Your task to perform on an android device: open app "Indeed Job Search" (install if not already installed) and enter user name: "quixotic@inbox.com" and password: "microphones" Image 0: 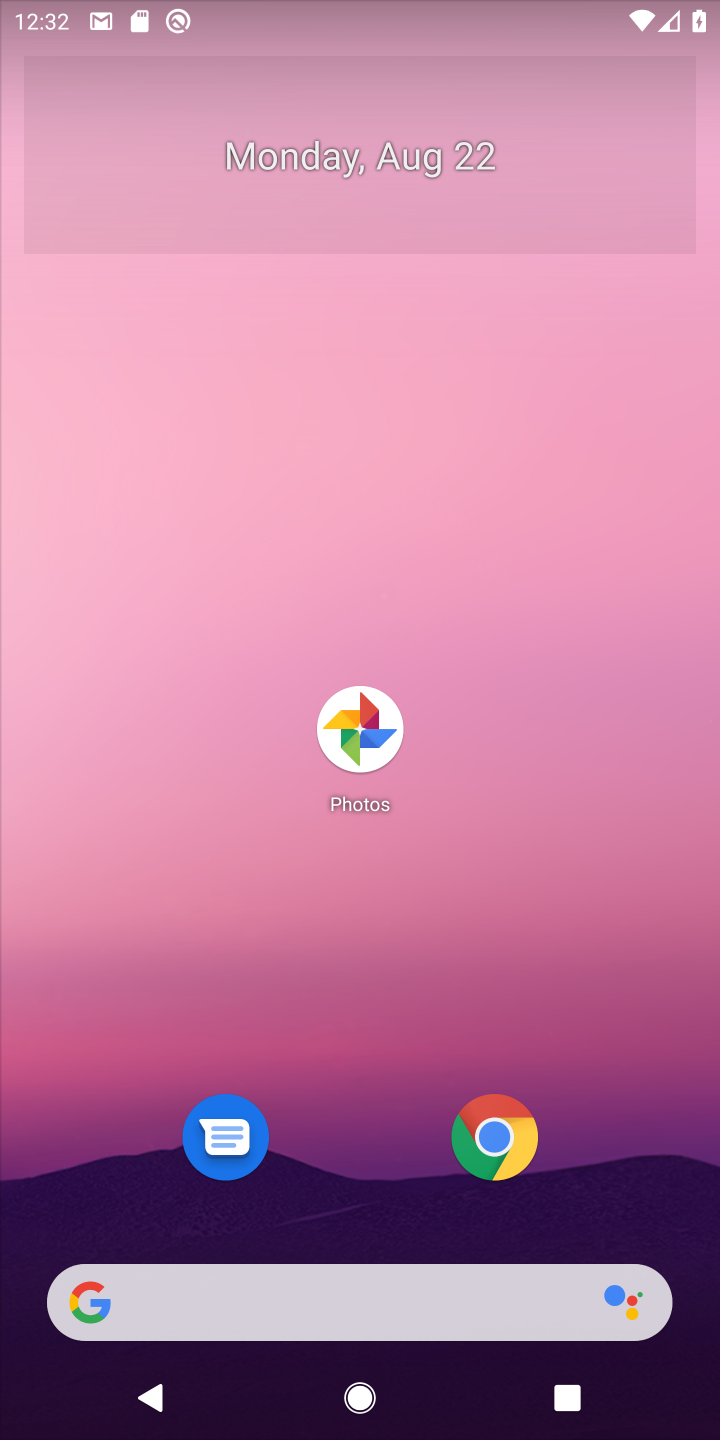
Step 0: drag from (651, 1009) to (544, 194)
Your task to perform on an android device: open app "Indeed Job Search" (install if not already installed) and enter user name: "quixotic@inbox.com" and password: "microphones" Image 1: 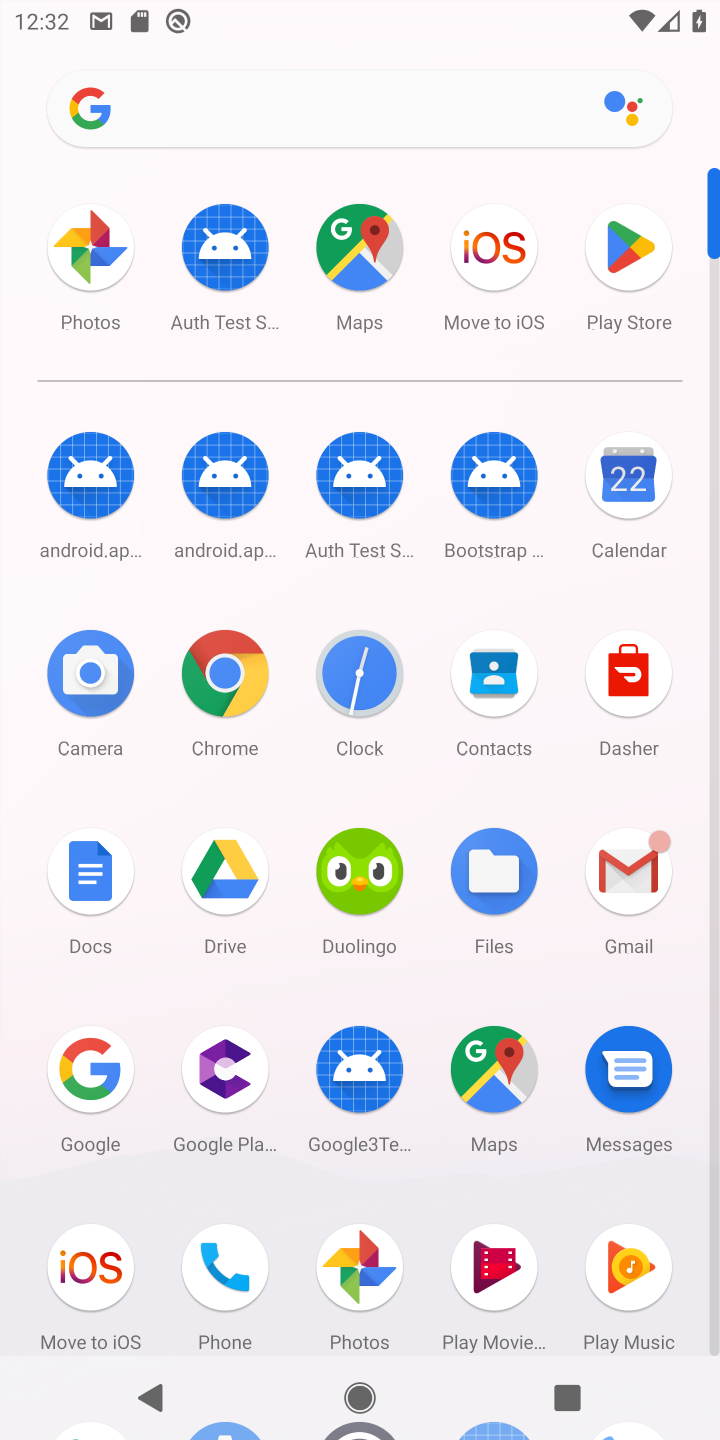
Step 1: drag from (294, 1204) to (277, 378)
Your task to perform on an android device: open app "Indeed Job Search" (install if not already installed) and enter user name: "quixotic@inbox.com" and password: "microphones" Image 2: 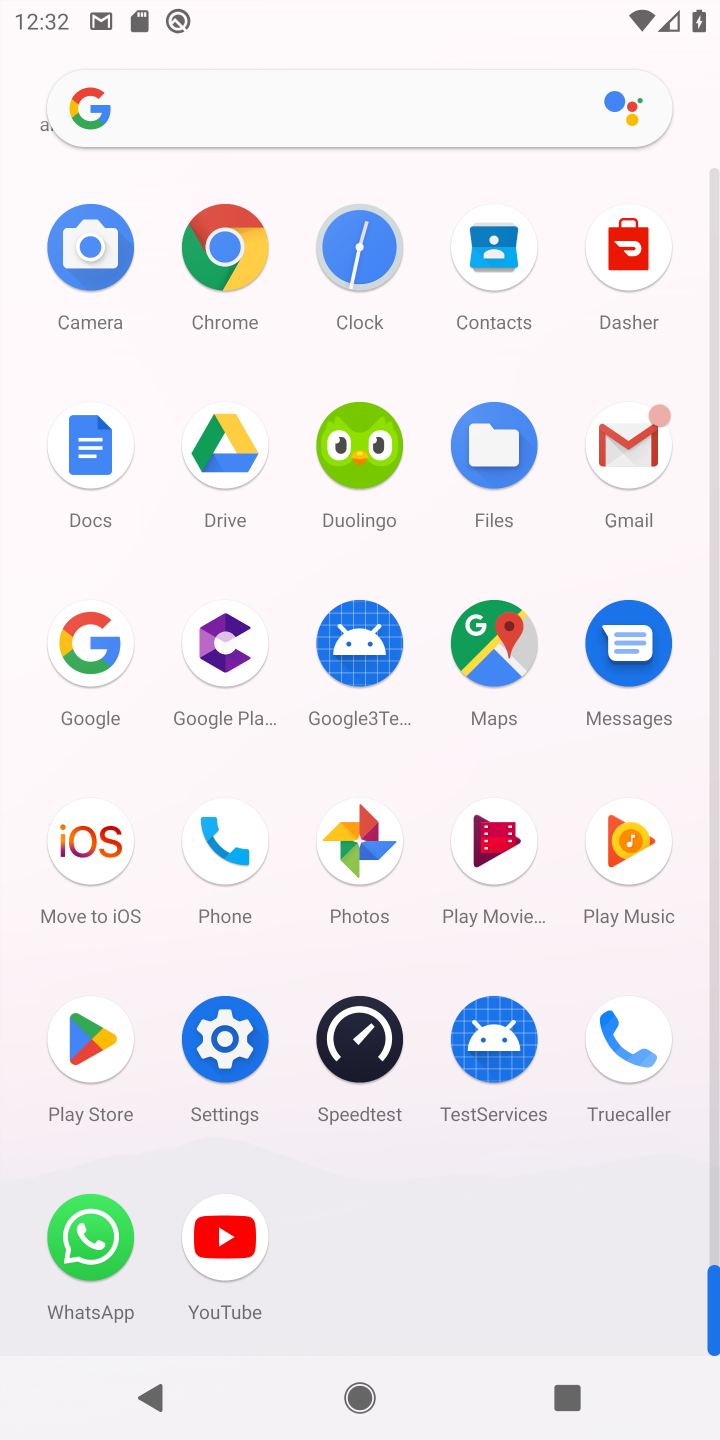
Step 2: click (98, 1034)
Your task to perform on an android device: open app "Indeed Job Search" (install if not already installed) and enter user name: "quixotic@inbox.com" and password: "microphones" Image 3: 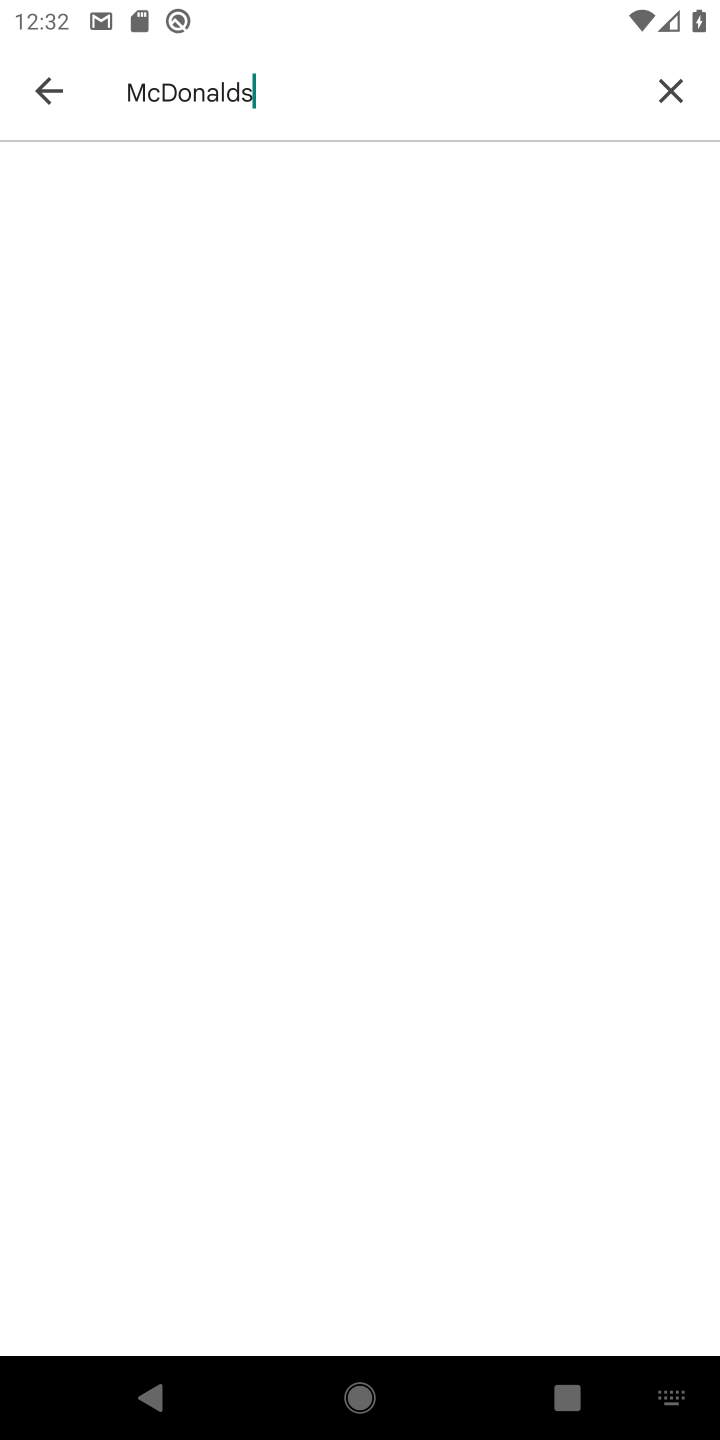
Step 3: click (671, 79)
Your task to perform on an android device: open app "Indeed Job Search" (install if not already installed) and enter user name: "quixotic@inbox.com" and password: "microphones" Image 4: 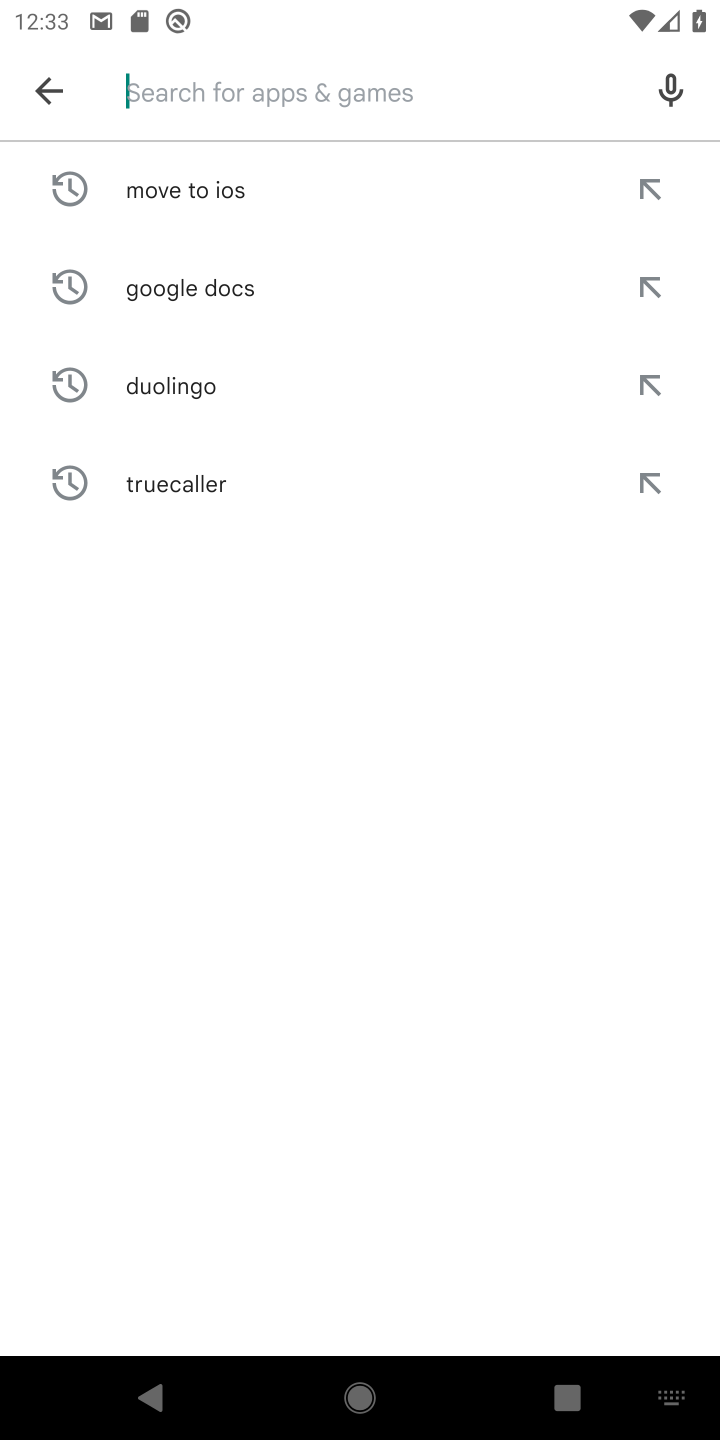
Step 4: type "Indeed job search"
Your task to perform on an android device: open app "Indeed Job Search" (install if not already installed) and enter user name: "quixotic@inbox.com" and password: "microphones" Image 5: 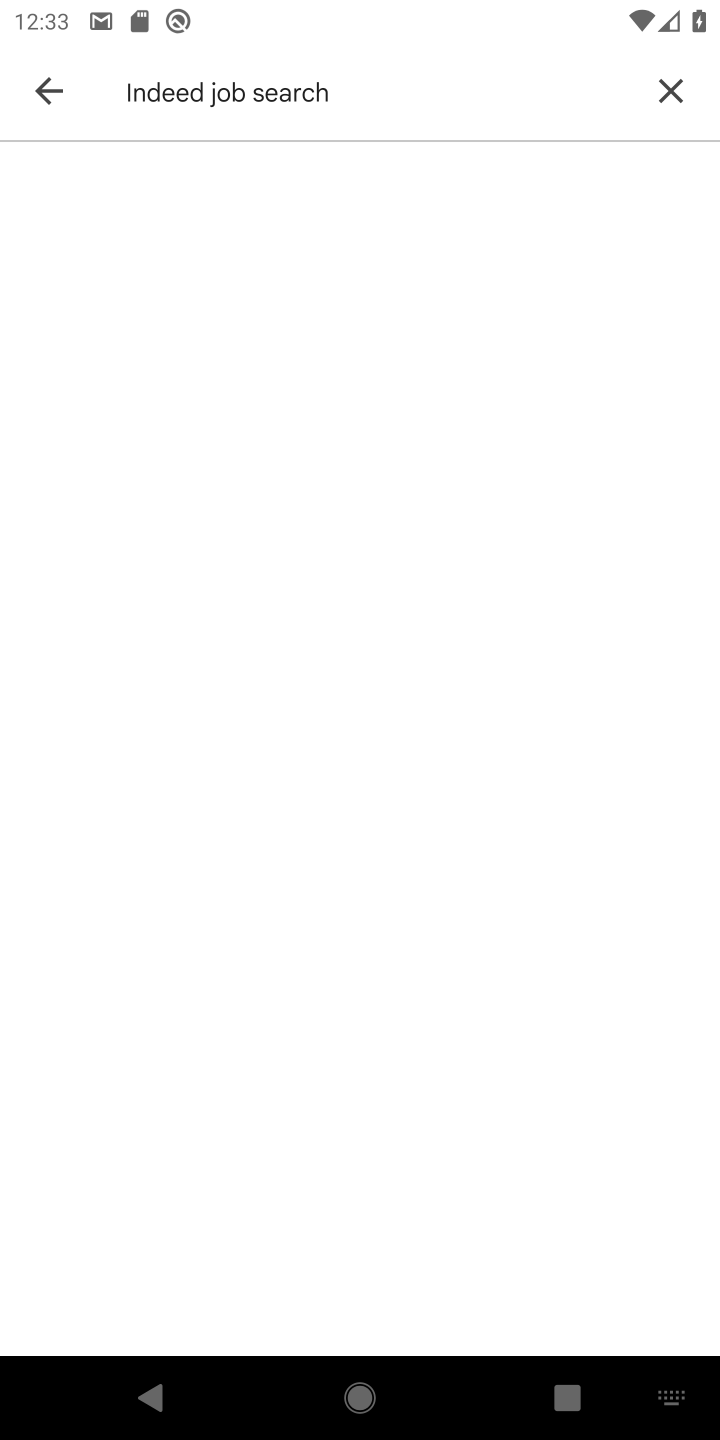
Step 5: task complete